Your task to perform on an android device: turn off sleep mode Image 0: 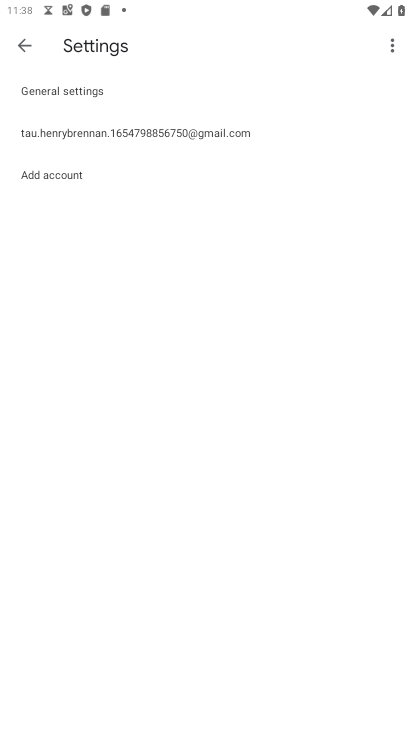
Step 0: press home button
Your task to perform on an android device: turn off sleep mode Image 1: 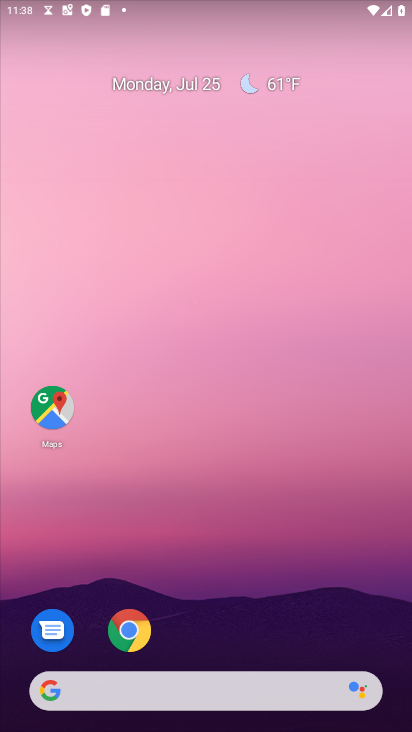
Step 1: drag from (267, 580) to (221, 40)
Your task to perform on an android device: turn off sleep mode Image 2: 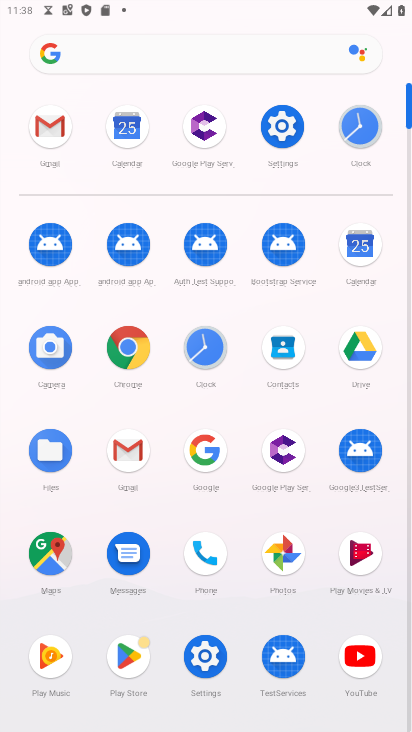
Step 2: click (278, 130)
Your task to perform on an android device: turn off sleep mode Image 3: 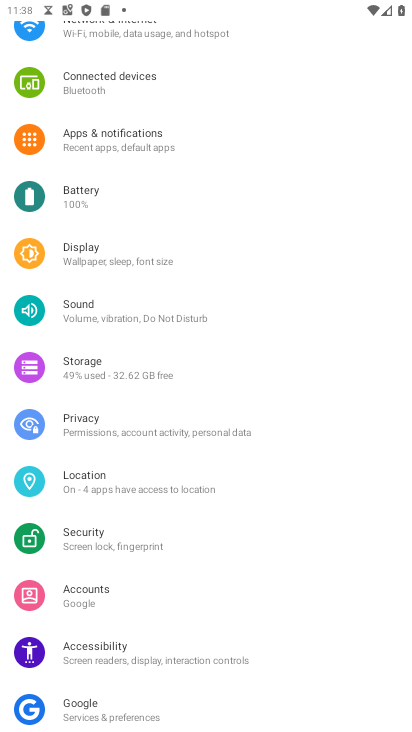
Step 3: click (92, 262)
Your task to perform on an android device: turn off sleep mode Image 4: 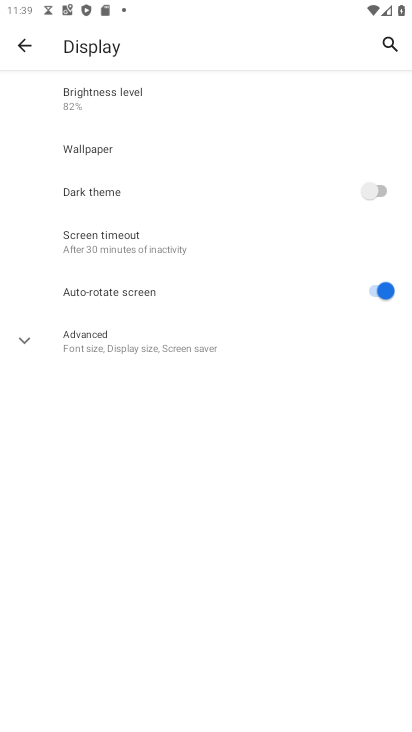
Step 4: click (153, 351)
Your task to perform on an android device: turn off sleep mode Image 5: 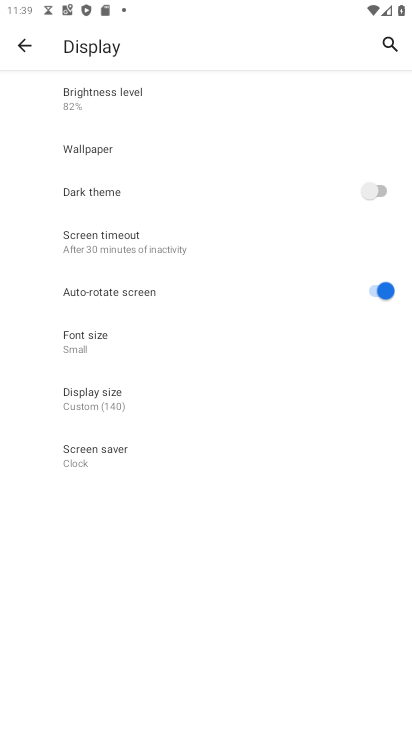
Step 5: task complete